Your task to perform on an android device: set default search engine in the chrome app Image 0: 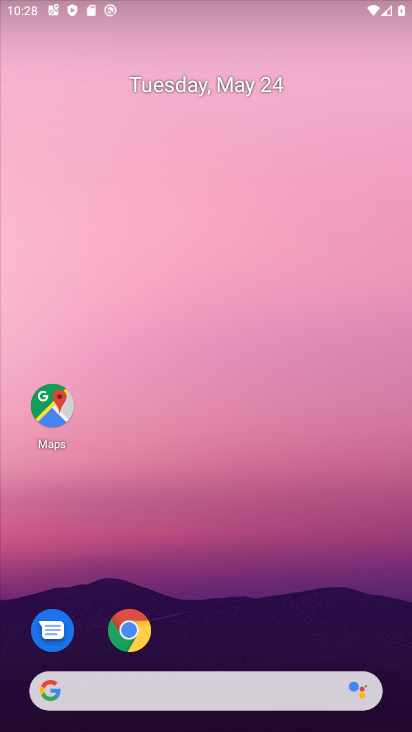
Step 0: press home button
Your task to perform on an android device: set default search engine in the chrome app Image 1: 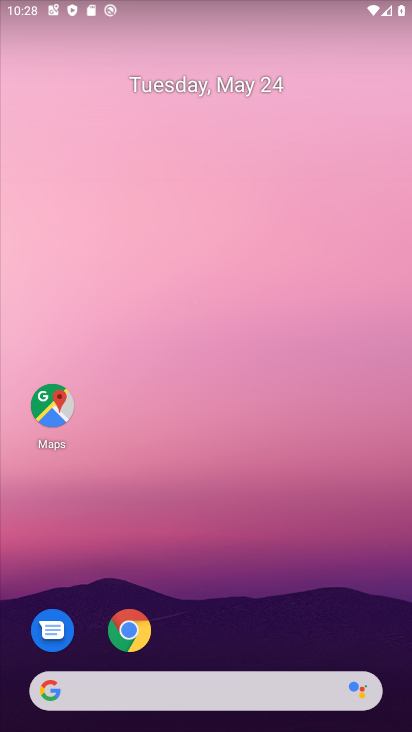
Step 1: drag from (230, 653) to (207, 27)
Your task to perform on an android device: set default search engine in the chrome app Image 2: 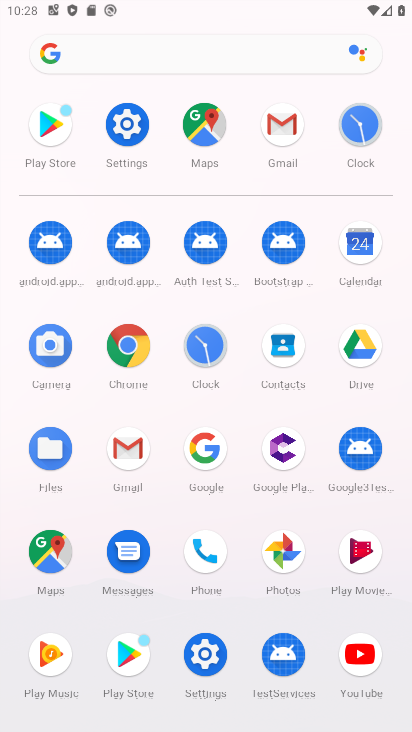
Step 2: click (128, 339)
Your task to perform on an android device: set default search engine in the chrome app Image 3: 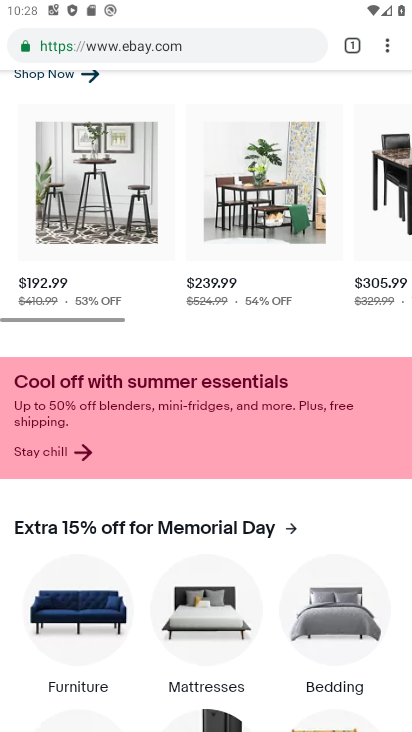
Step 3: click (390, 44)
Your task to perform on an android device: set default search engine in the chrome app Image 4: 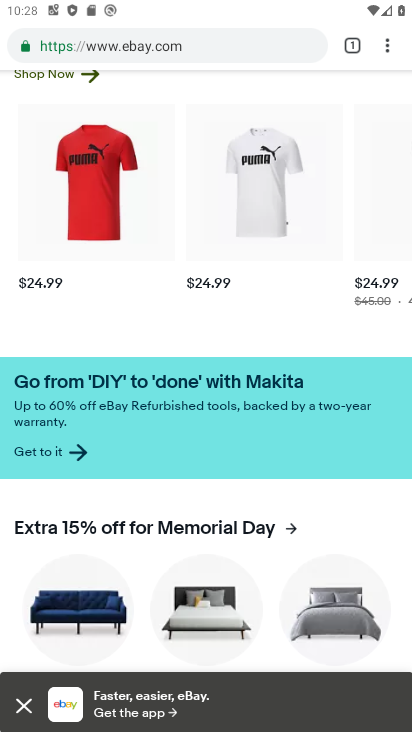
Step 4: click (390, 43)
Your task to perform on an android device: set default search engine in the chrome app Image 5: 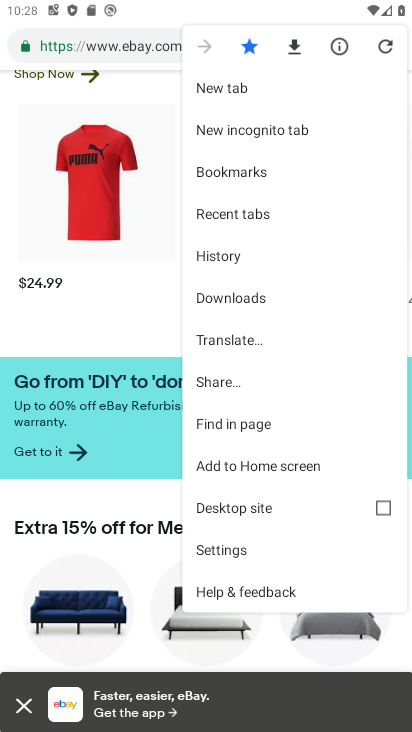
Step 5: click (260, 548)
Your task to perform on an android device: set default search engine in the chrome app Image 6: 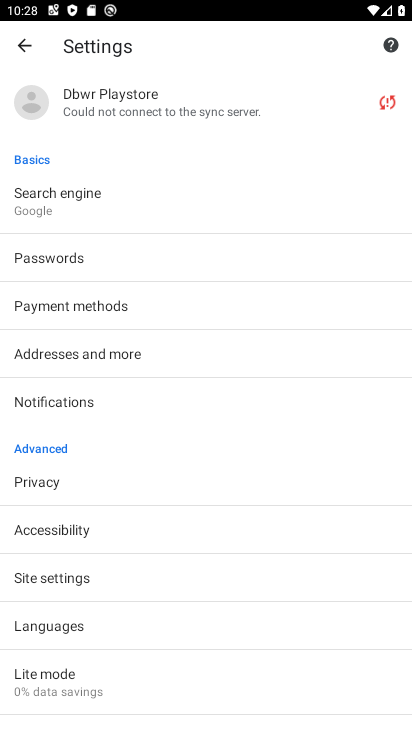
Step 6: click (113, 207)
Your task to perform on an android device: set default search engine in the chrome app Image 7: 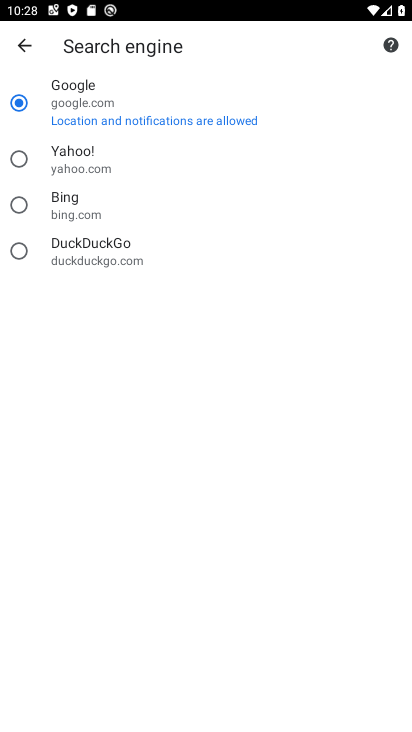
Step 7: click (16, 154)
Your task to perform on an android device: set default search engine in the chrome app Image 8: 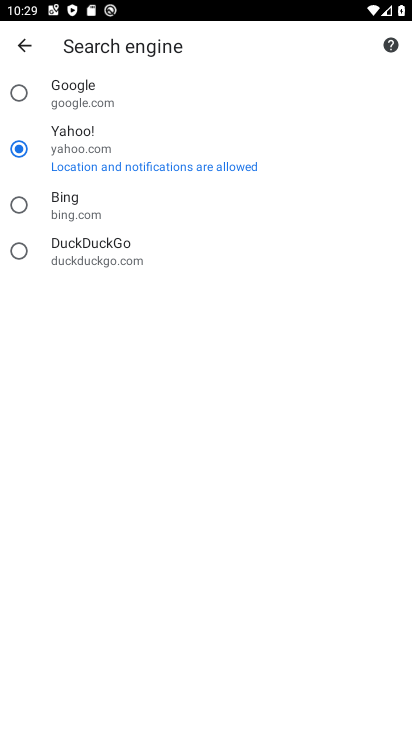
Step 8: task complete